Your task to perform on an android device: toggle improve location accuracy Image 0: 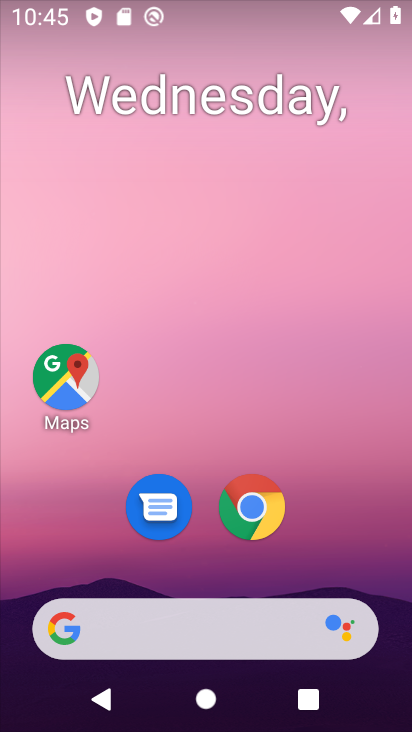
Step 0: drag from (342, 525) to (358, 31)
Your task to perform on an android device: toggle improve location accuracy Image 1: 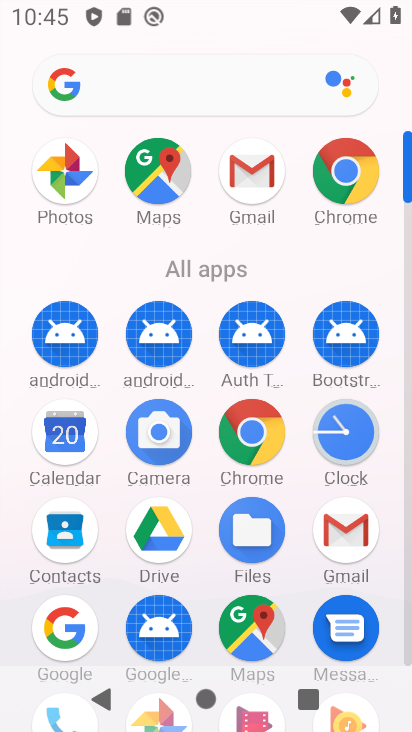
Step 1: drag from (203, 570) to (206, 203)
Your task to perform on an android device: toggle improve location accuracy Image 2: 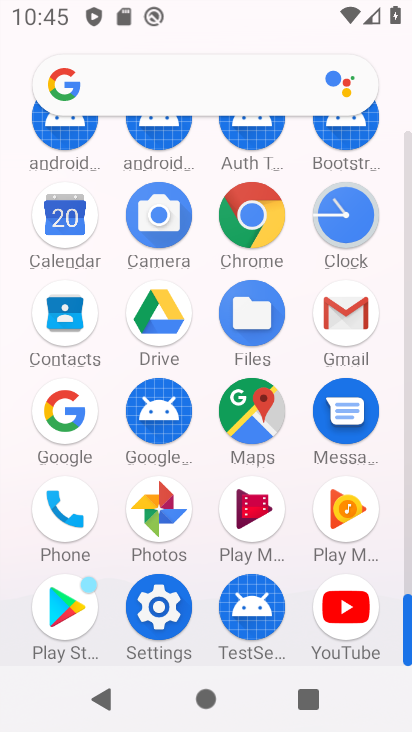
Step 2: click (165, 623)
Your task to perform on an android device: toggle improve location accuracy Image 3: 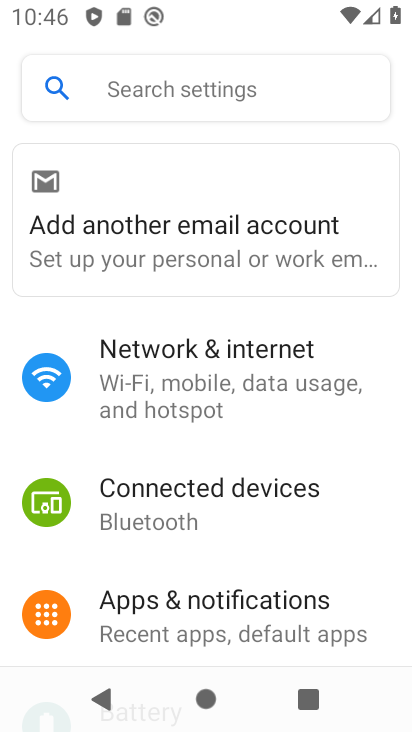
Step 3: drag from (363, 571) to (387, 295)
Your task to perform on an android device: toggle improve location accuracy Image 4: 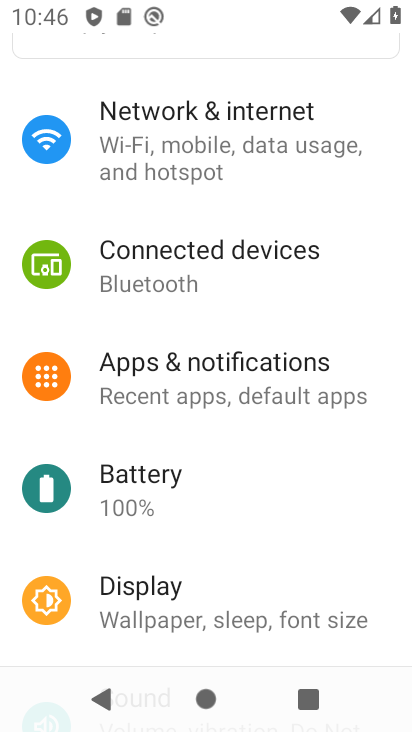
Step 4: drag from (375, 551) to (371, 324)
Your task to perform on an android device: toggle improve location accuracy Image 5: 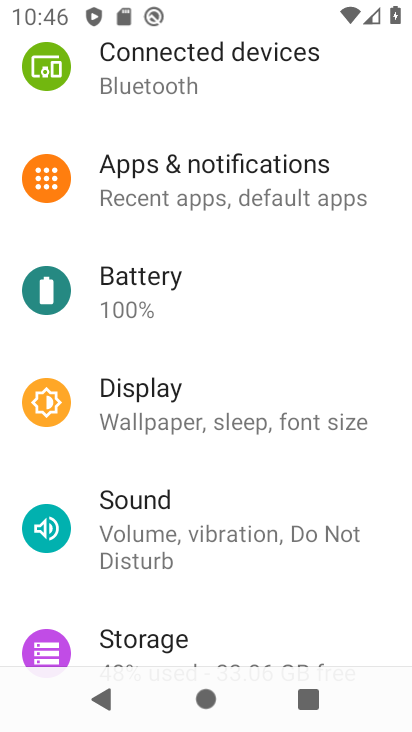
Step 5: drag from (382, 596) to (378, 385)
Your task to perform on an android device: toggle improve location accuracy Image 6: 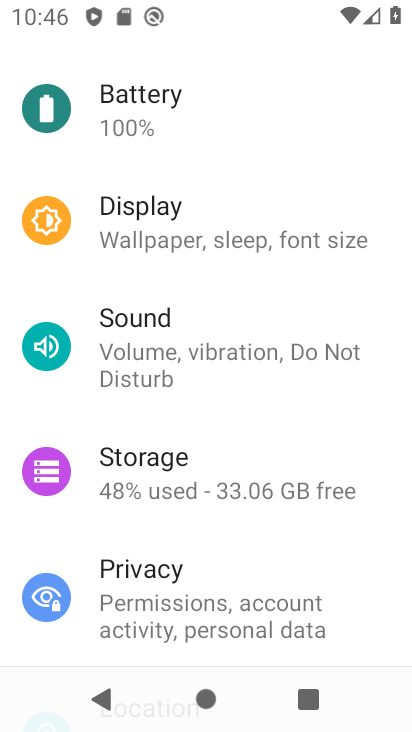
Step 6: drag from (370, 595) to (381, 410)
Your task to perform on an android device: toggle improve location accuracy Image 7: 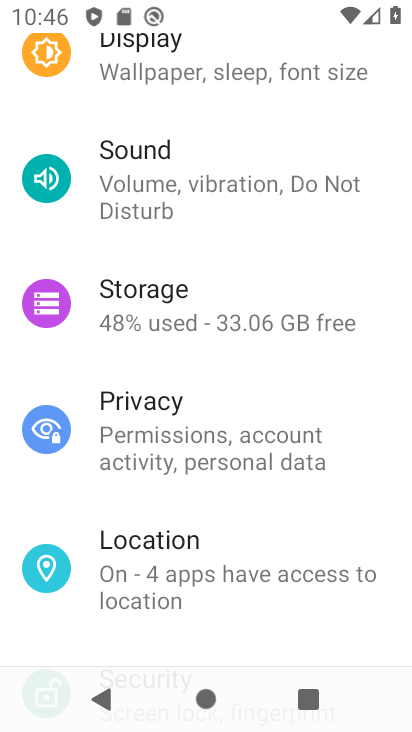
Step 7: drag from (374, 623) to (379, 436)
Your task to perform on an android device: toggle improve location accuracy Image 8: 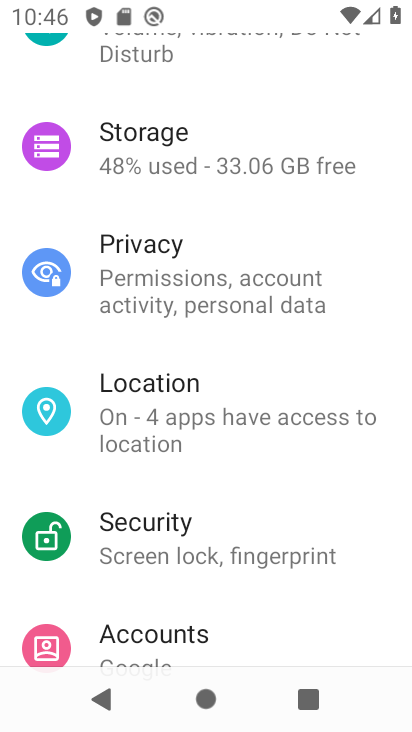
Step 8: click (173, 422)
Your task to perform on an android device: toggle improve location accuracy Image 9: 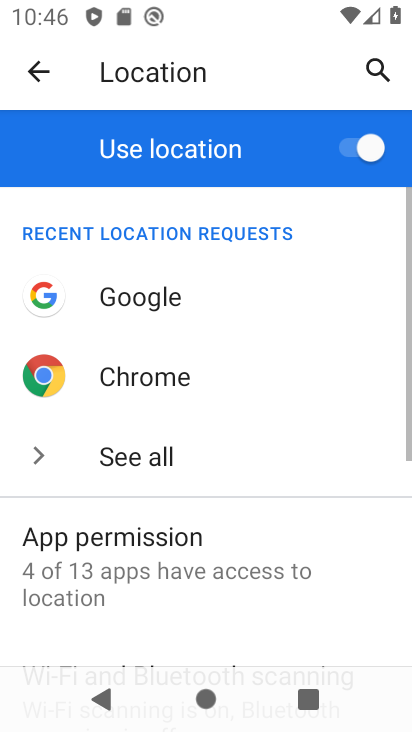
Step 9: drag from (333, 539) to (355, 317)
Your task to perform on an android device: toggle improve location accuracy Image 10: 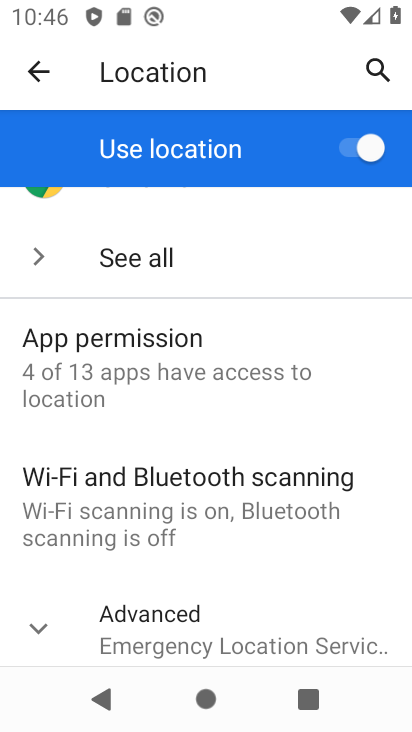
Step 10: click (163, 633)
Your task to perform on an android device: toggle improve location accuracy Image 11: 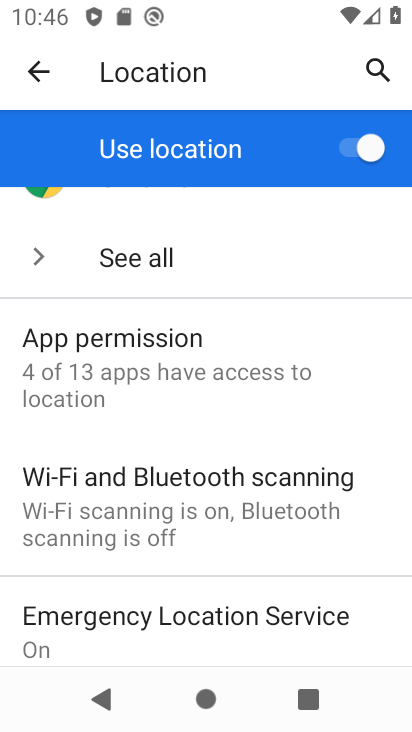
Step 11: drag from (382, 599) to (378, 287)
Your task to perform on an android device: toggle improve location accuracy Image 12: 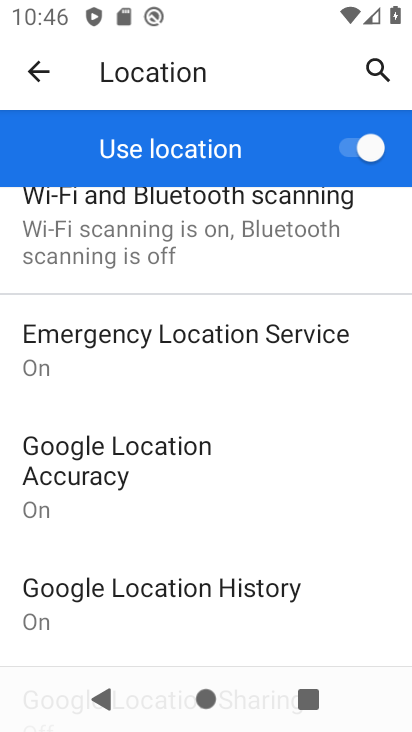
Step 12: click (93, 485)
Your task to perform on an android device: toggle improve location accuracy Image 13: 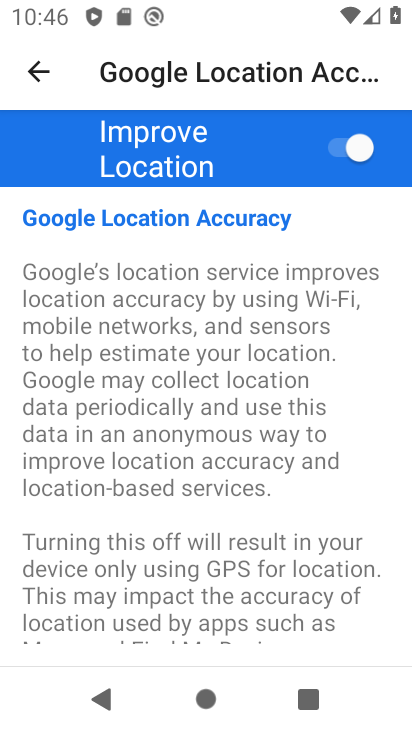
Step 13: click (348, 141)
Your task to perform on an android device: toggle improve location accuracy Image 14: 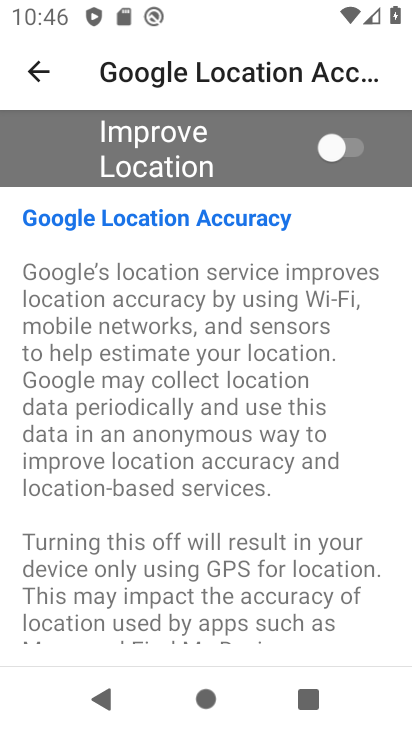
Step 14: task complete